Your task to perform on an android device: add a contact Image 0: 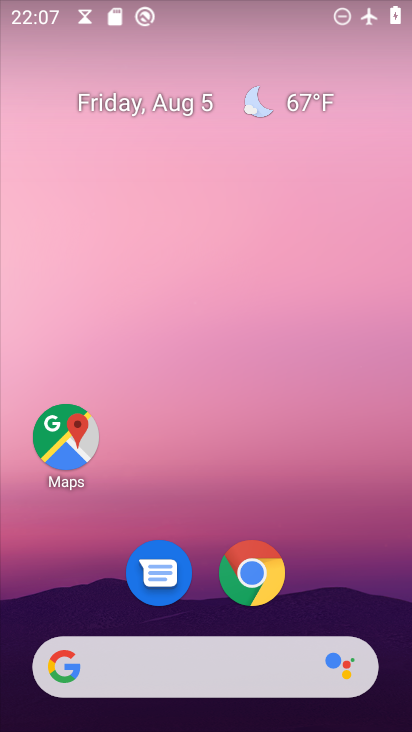
Step 0: drag from (183, 664) to (247, 40)
Your task to perform on an android device: add a contact Image 1: 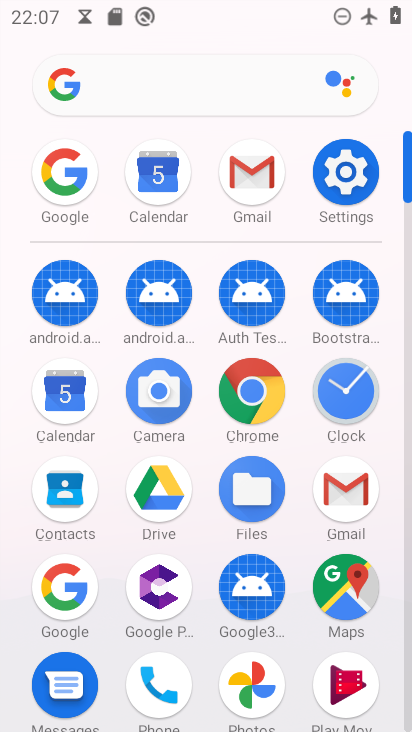
Step 1: click (67, 498)
Your task to perform on an android device: add a contact Image 2: 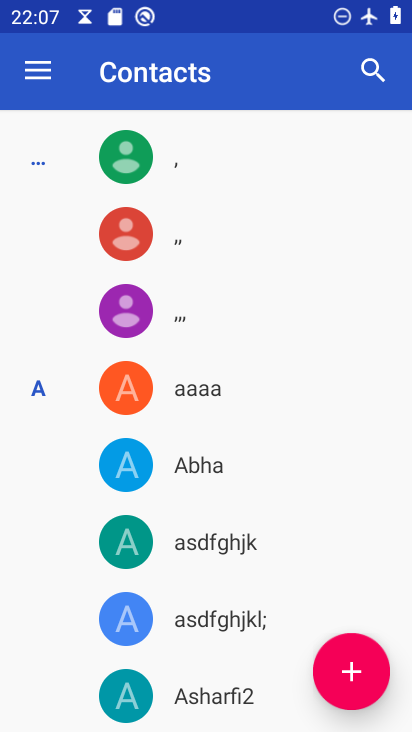
Step 2: click (354, 672)
Your task to perform on an android device: add a contact Image 3: 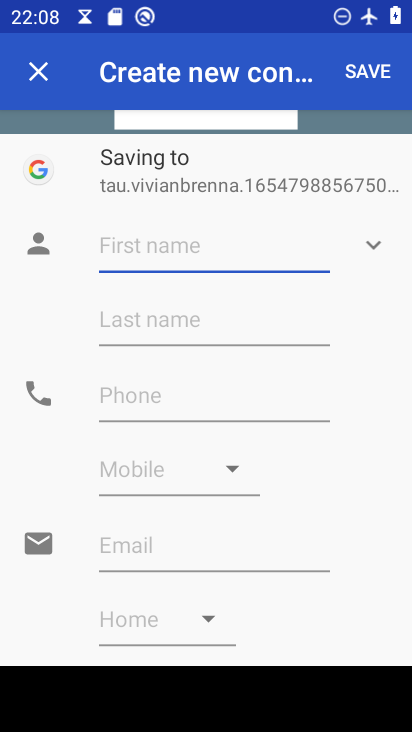
Step 3: type "Satvik"
Your task to perform on an android device: add a contact Image 4: 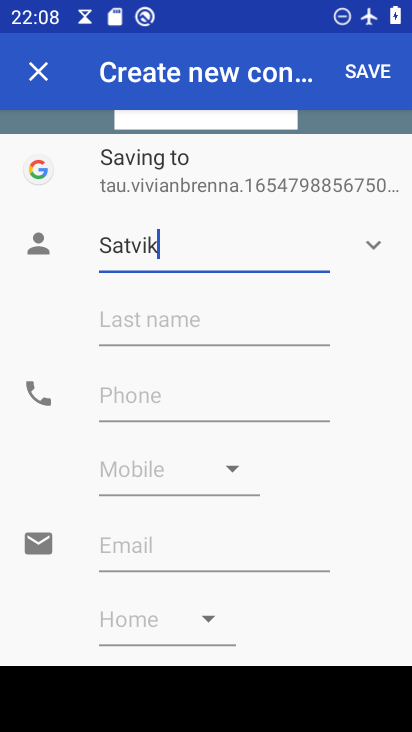
Step 4: click (278, 316)
Your task to perform on an android device: add a contact Image 5: 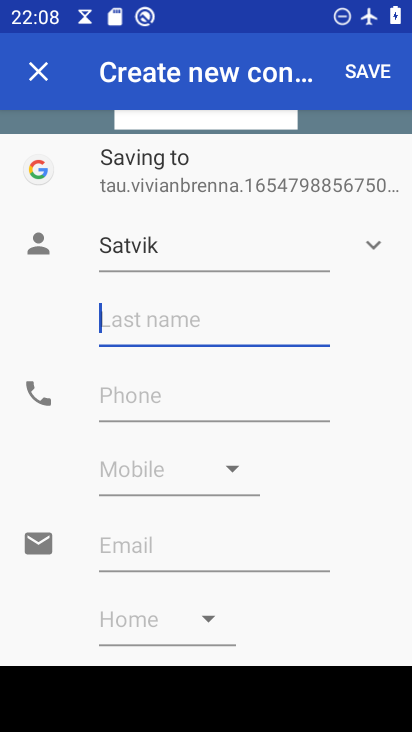
Step 5: type "Dubey"
Your task to perform on an android device: add a contact Image 6: 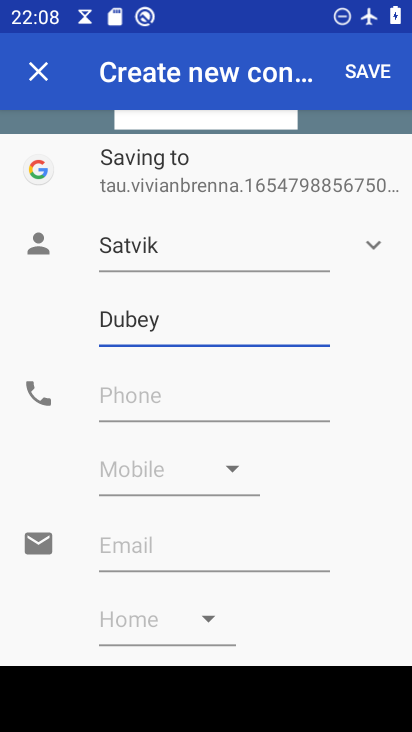
Step 6: click (222, 407)
Your task to perform on an android device: add a contact Image 7: 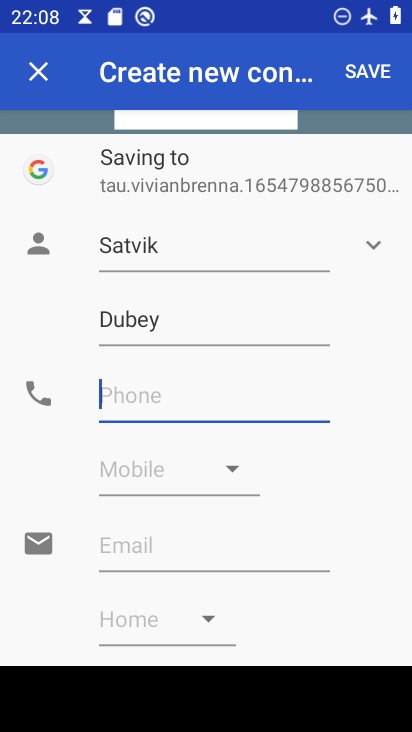
Step 7: type "0987654321"
Your task to perform on an android device: add a contact Image 8: 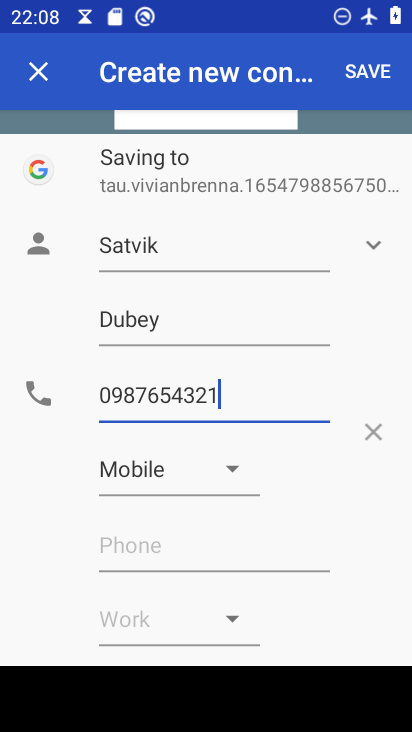
Step 8: type ""
Your task to perform on an android device: add a contact Image 9: 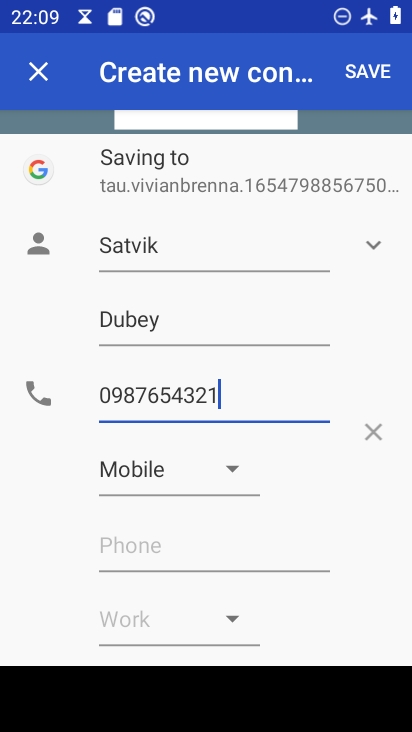
Step 9: click (357, 77)
Your task to perform on an android device: add a contact Image 10: 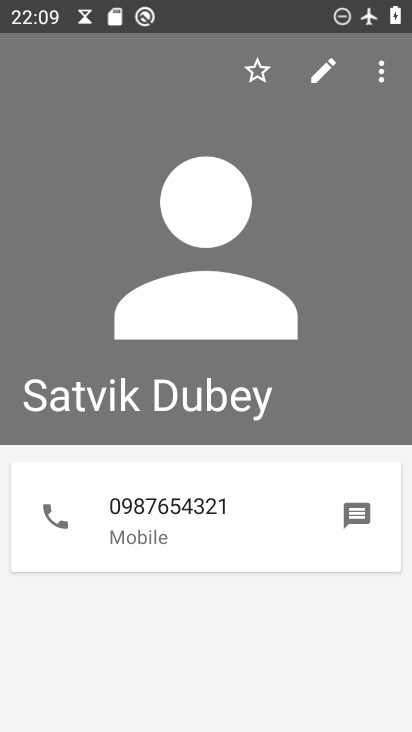
Step 10: task complete